Your task to perform on an android device: Open Youtube and go to "Your channel" Image 0: 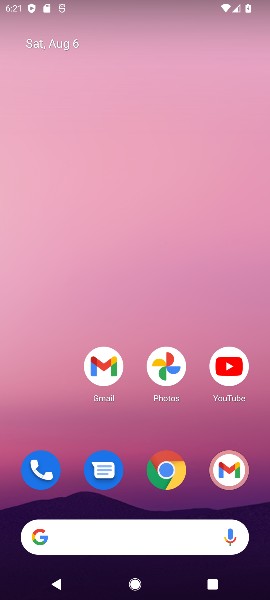
Step 0: drag from (130, 492) to (148, 120)
Your task to perform on an android device: Open Youtube and go to "Your channel" Image 1: 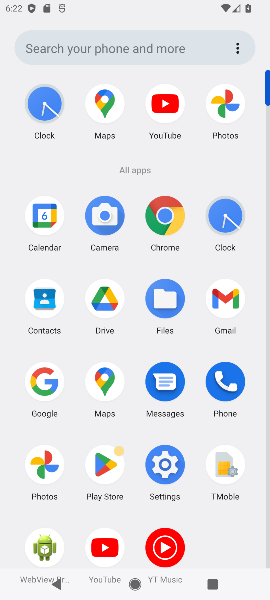
Step 1: click (103, 545)
Your task to perform on an android device: Open Youtube and go to "Your channel" Image 2: 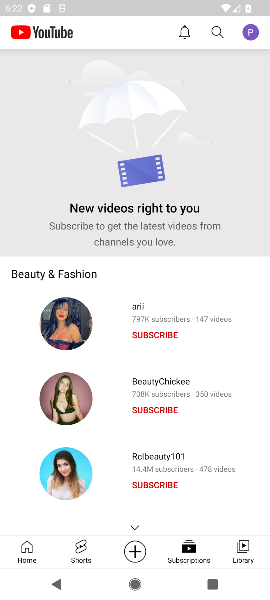
Step 2: click (251, 24)
Your task to perform on an android device: Open Youtube and go to "Your channel" Image 3: 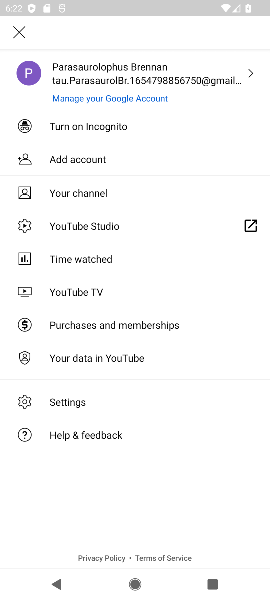
Step 3: click (81, 191)
Your task to perform on an android device: Open Youtube and go to "Your channel" Image 4: 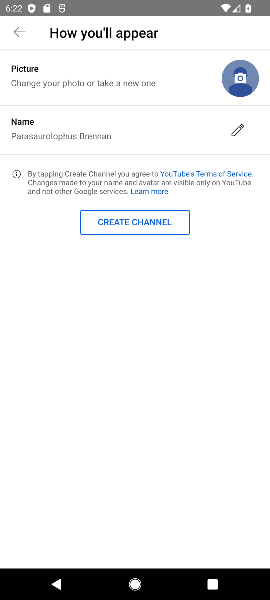
Step 4: task complete